Your task to perform on an android device: move a message to another label in the gmail app Image 0: 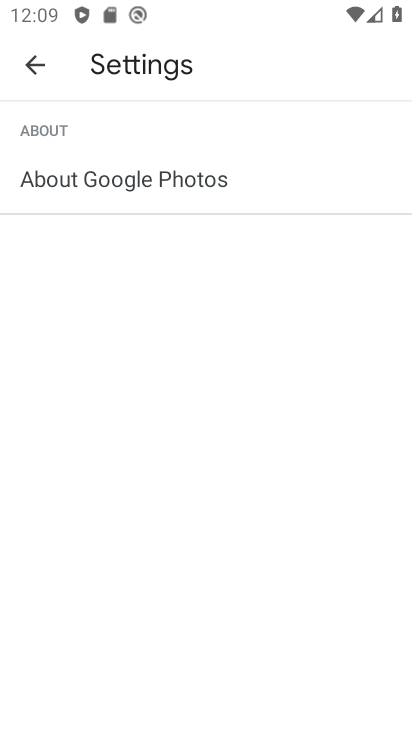
Step 0: press home button
Your task to perform on an android device: move a message to another label in the gmail app Image 1: 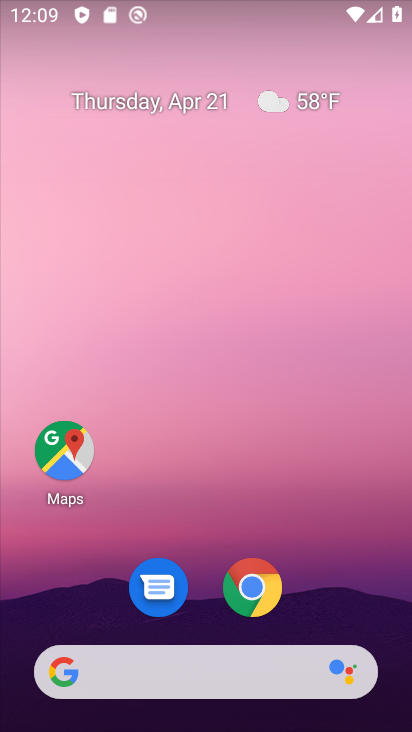
Step 1: drag from (202, 475) to (311, 0)
Your task to perform on an android device: move a message to another label in the gmail app Image 2: 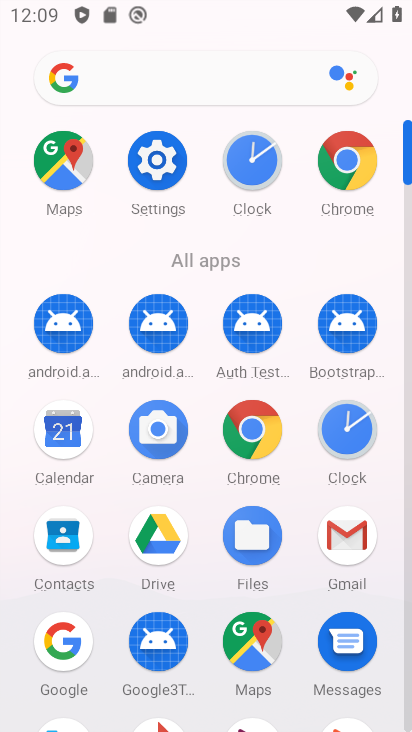
Step 2: click (349, 551)
Your task to perform on an android device: move a message to another label in the gmail app Image 3: 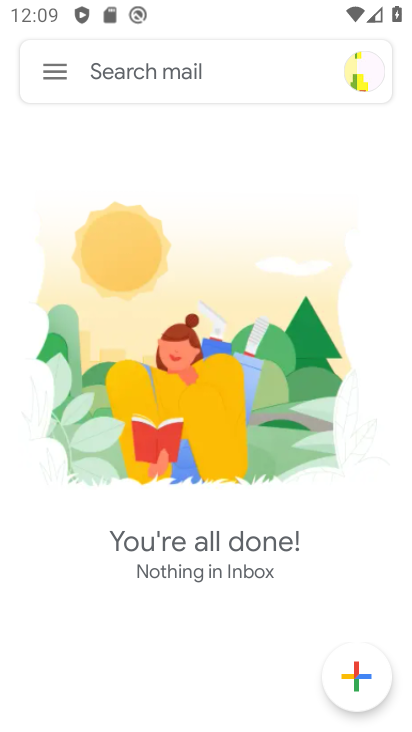
Step 3: click (51, 66)
Your task to perform on an android device: move a message to another label in the gmail app Image 4: 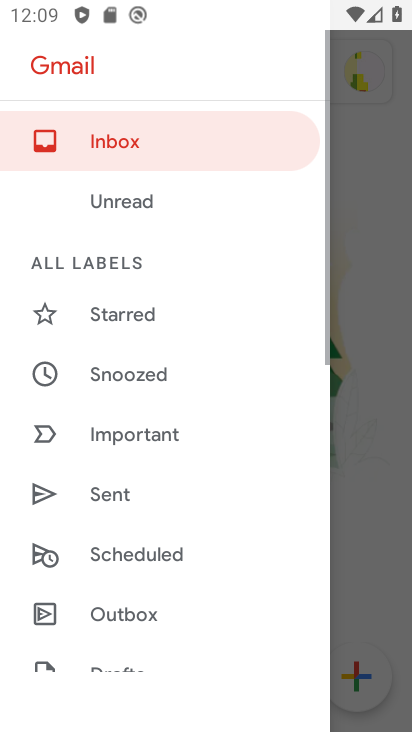
Step 4: drag from (126, 576) to (199, 209)
Your task to perform on an android device: move a message to another label in the gmail app Image 5: 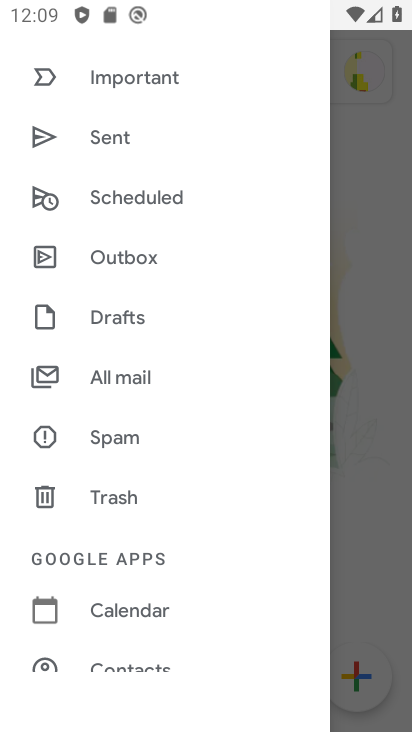
Step 5: click (107, 382)
Your task to perform on an android device: move a message to another label in the gmail app Image 6: 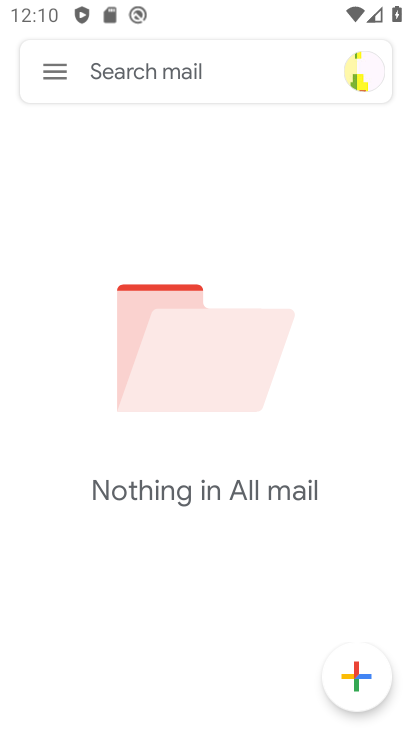
Step 6: task complete